Your task to perform on an android device: Open CNN.com Image 0: 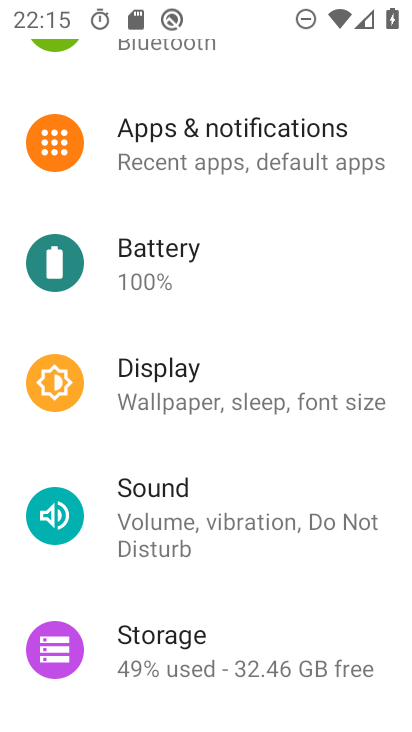
Step 0: press home button
Your task to perform on an android device: Open CNN.com Image 1: 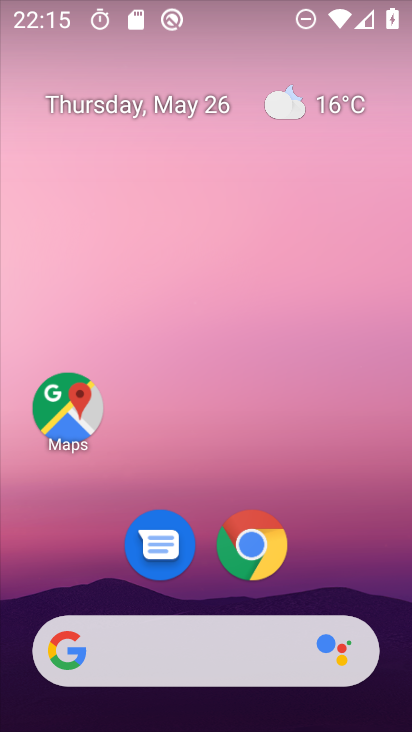
Step 1: drag from (338, 561) to (331, 80)
Your task to perform on an android device: Open CNN.com Image 2: 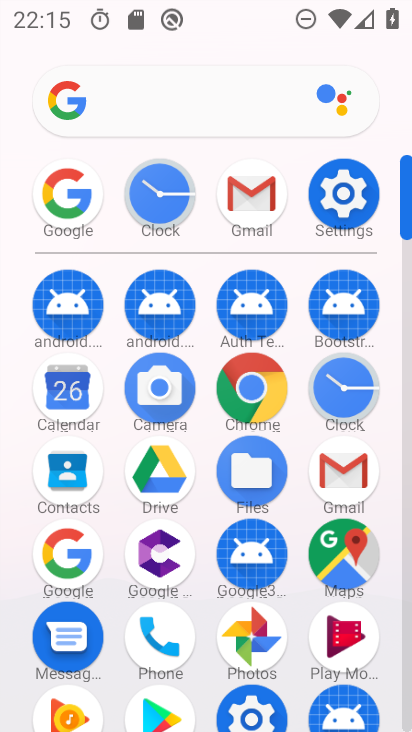
Step 2: click (79, 186)
Your task to perform on an android device: Open CNN.com Image 3: 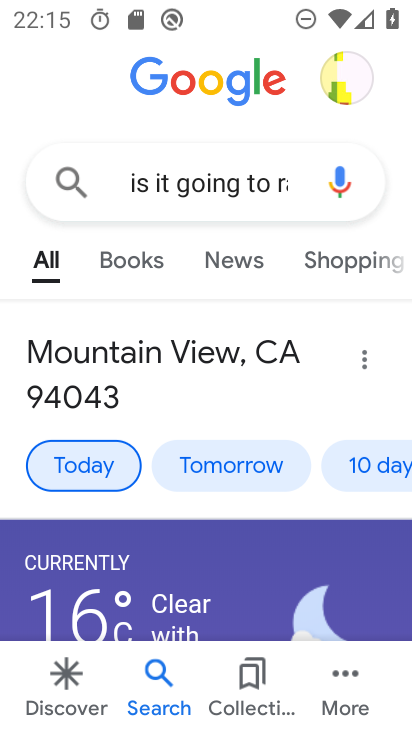
Step 3: click (267, 178)
Your task to perform on an android device: Open CNN.com Image 4: 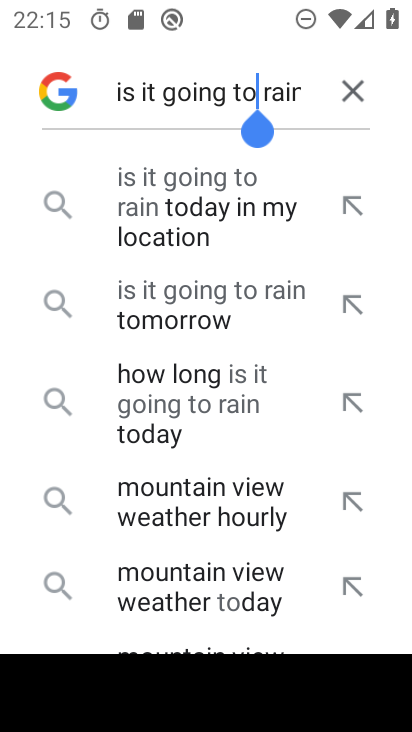
Step 4: click (361, 87)
Your task to perform on an android device: Open CNN.com Image 5: 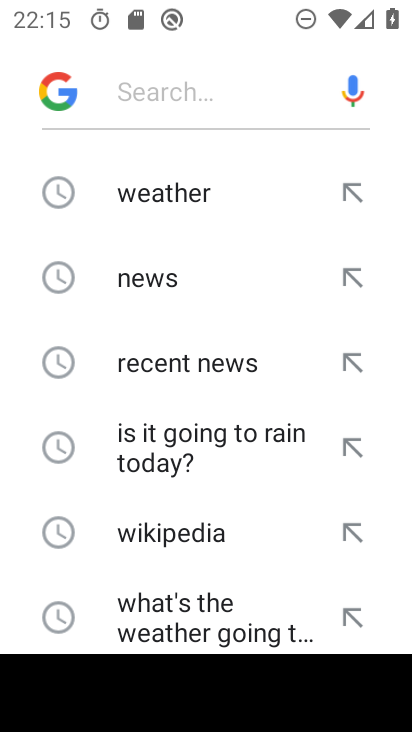
Step 5: drag from (256, 554) to (282, 184)
Your task to perform on an android device: Open CNN.com Image 6: 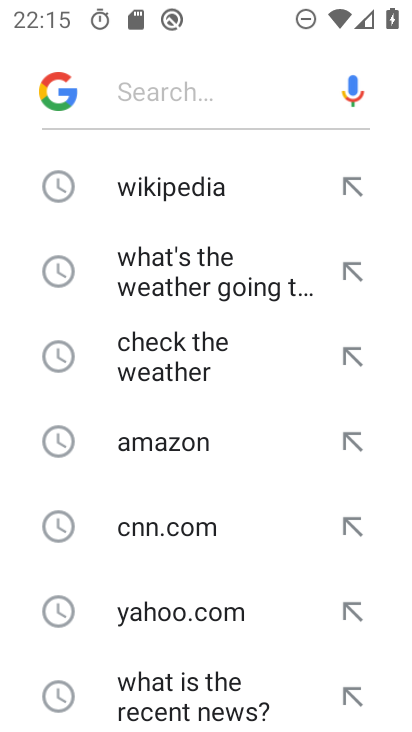
Step 6: click (166, 527)
Your task to perform on an android device: Open CNN.com Image 7: 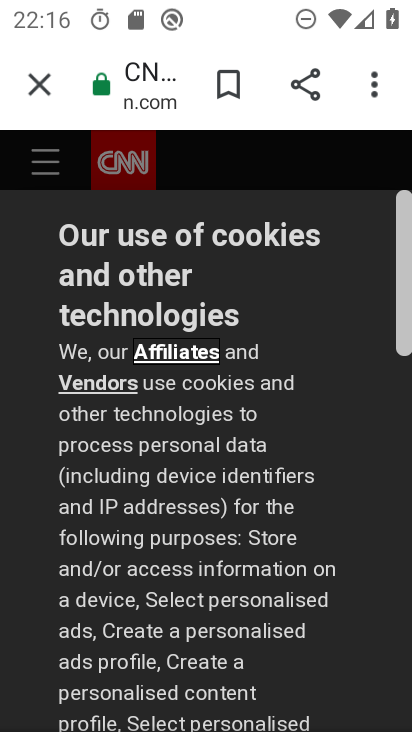
Step 7: task complete